Your task to perform on an android device: turn off notifications settings in the gmail app Image 0: 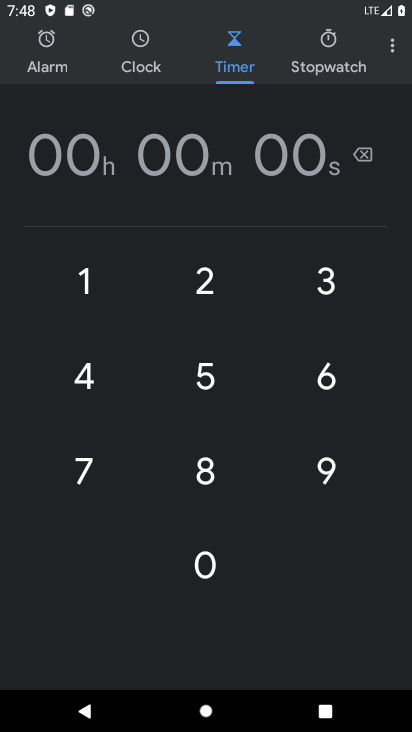
Step 0: press home button
Your task to perform on an android device: turn off notifications settings in the gmail app Image 1: 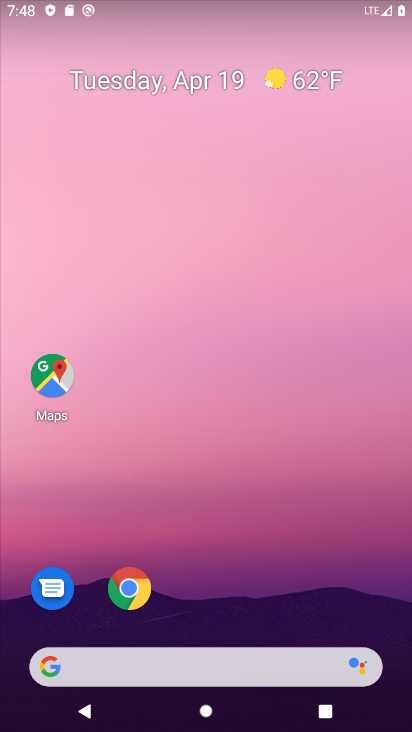
Step 1: drag from (258, 580) to (211, 61)
Your task to perform on an android device: turn off notifications settings in the gmail app Image 2: 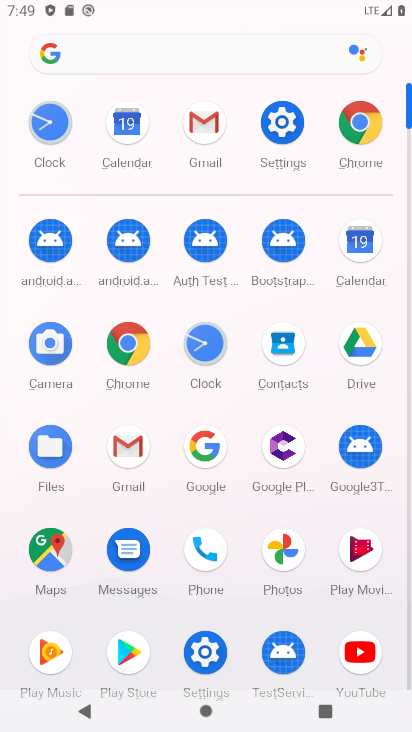
Step 2: click (202, 122)
Your task to perform on an android device: turn off notifications settings in the gmail app Image 3: 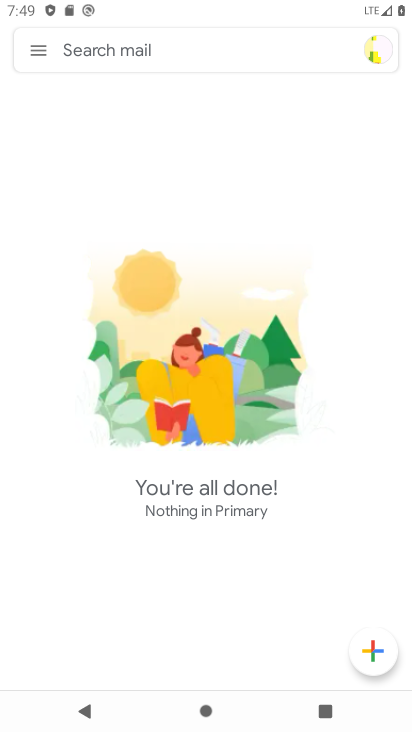
Step 3: click (40, 50)
Your task to perform on an android device: turn off notifications settings in the gmail app Image 4: 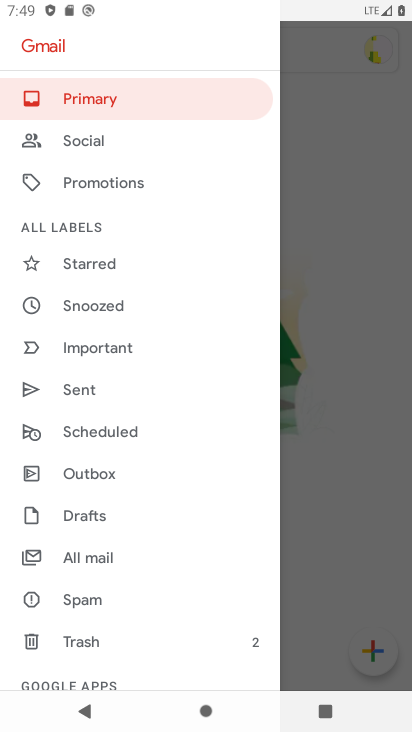
Step 4: drag from (148, 649) to (135, 80)
Your task to perform on an android device: turn off notifications settings in the gmail app Image 5: 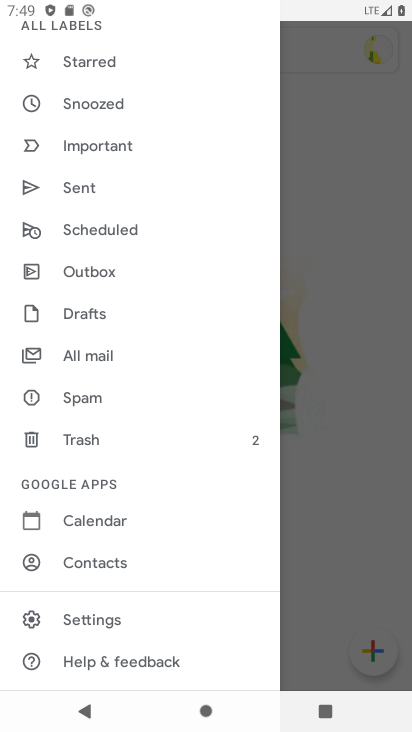
Step 5: click (97, 621)
Your task to perform on an android device: turn off notifications settings in the gmail app Image 6: 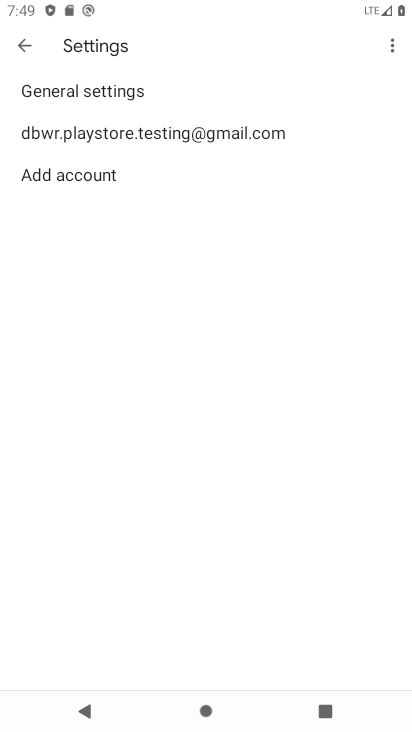
Step 6: click (52, 87)
Your task to perform on an android device: turn off notifications settings in the gmail app Image 7: 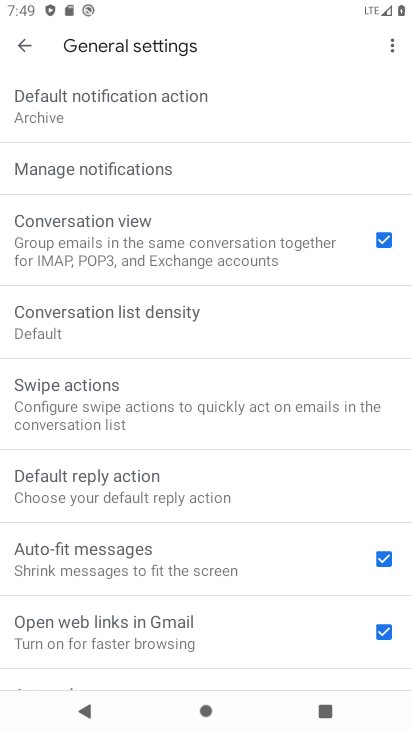
Step 7: click (101, 174)
Your task to perform on an android device: turn off notifications settings in the gmail app Image 8: 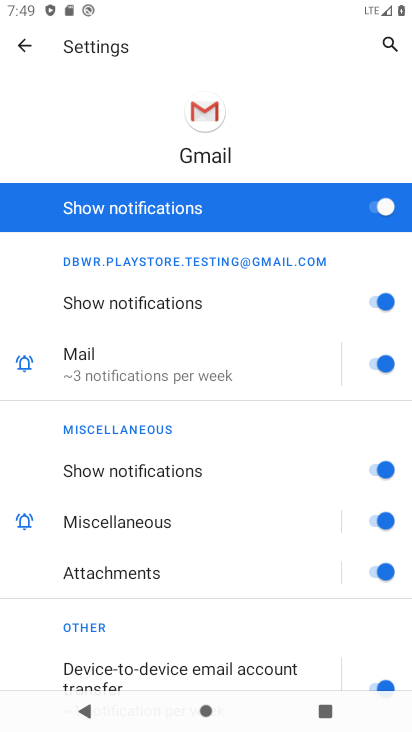
Step 8: click (382, 210)
Your task to perform on an android device: turn off notifications settings in the gmail app Image 9: 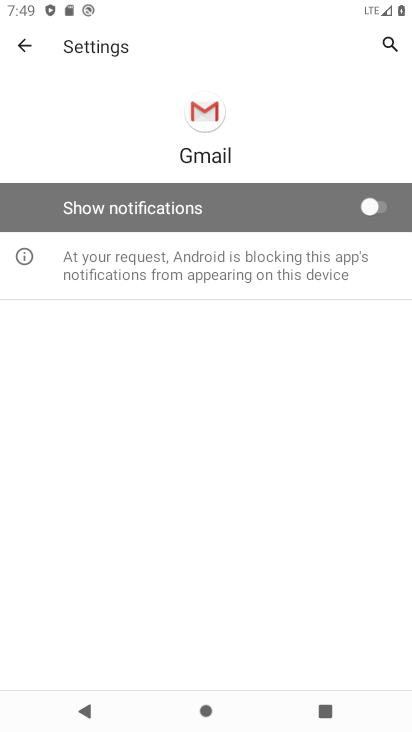
Step 9: task complete